Your task to perform on an android device: find which apps use the phone's location Image 0: 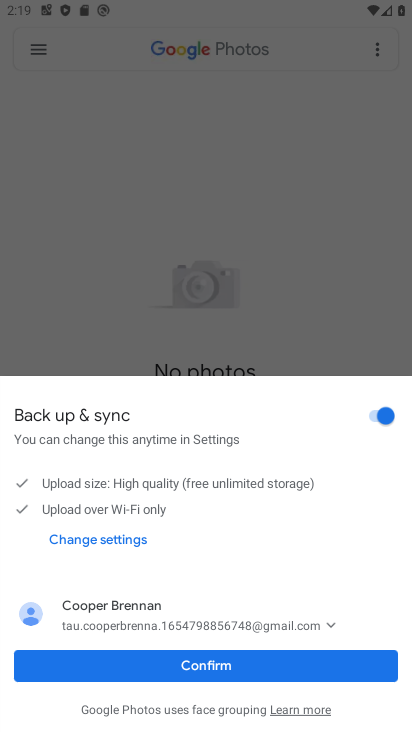
Step 0: press home button
Your task to perform on an android device: find which apps use the phone's location Image 1: 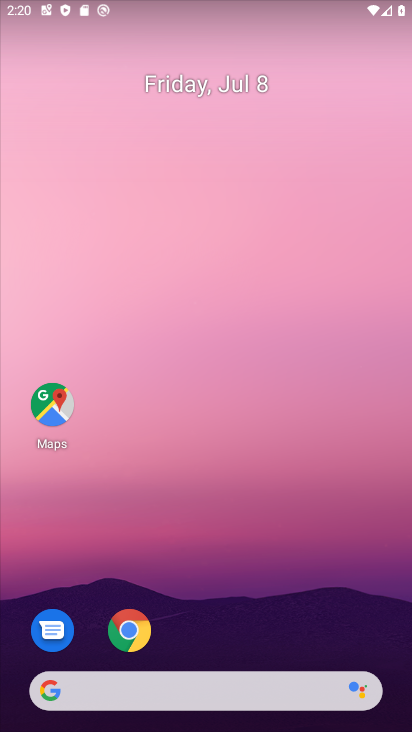
Step 1: drag from (266, 642) to (133, 200)
Your task to perform on an android device: find which apps use the phone's location Image 2: 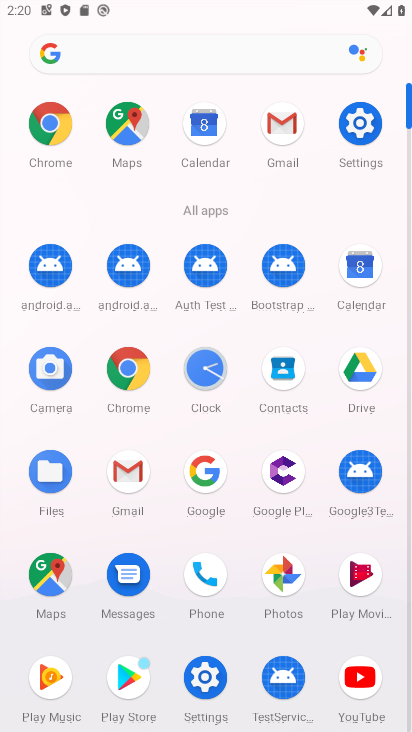
Step 2: click (346, 129)
Your task to perform on an android device: find which apps use the phone's location Image 3: 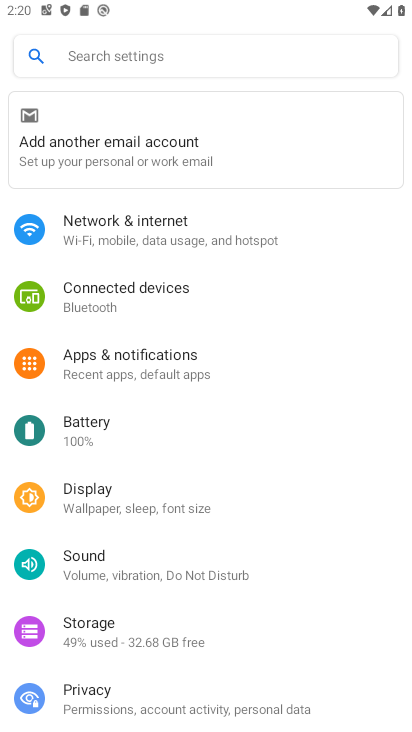
Step 3: drag from (190, 627) to (177, 331)
Your task to perform on an android device: find which apps use the phone's location Image 4: 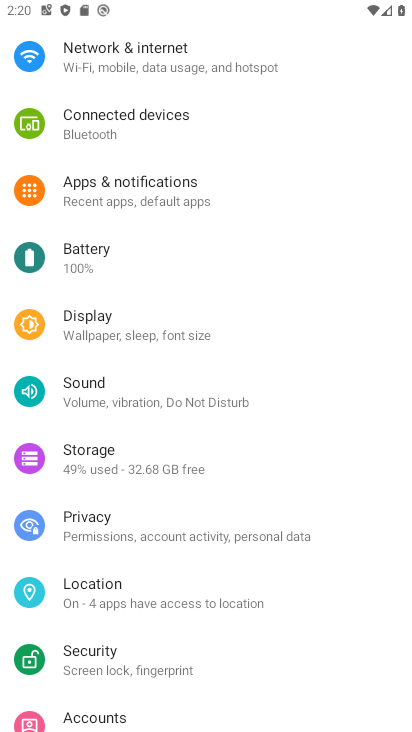
Step 4: click (167, 587)
Your task to perform on an android device: find which apps use the phone's location Image 5: 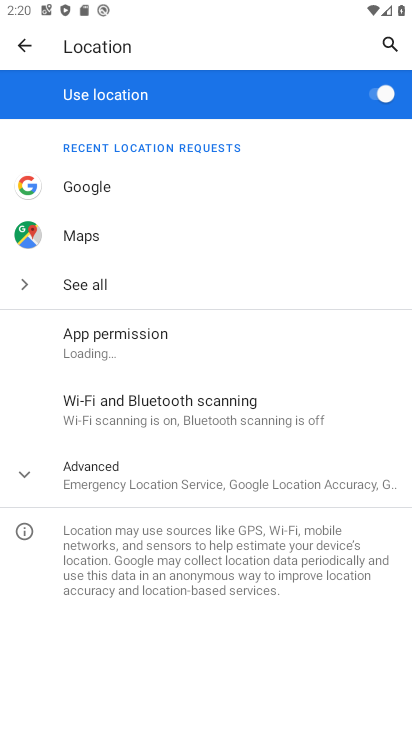
Step 5: task complete